Your task to perform on an android device: Open Yahoo.com Image 0: 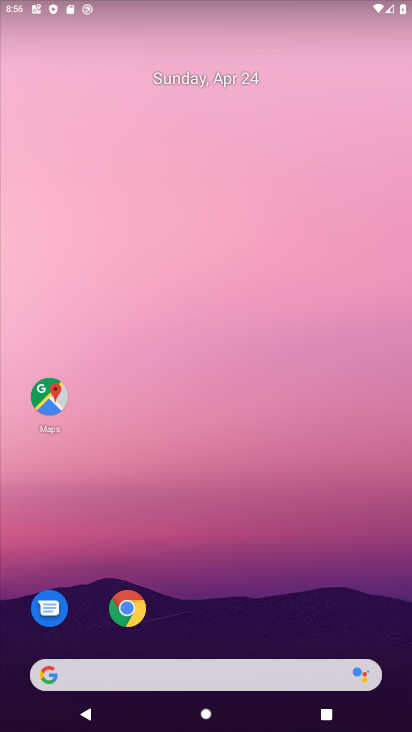
Step 0: drag from (279, 651) to (263, 208)
Your task to perform on an android device: Open Yahoo.com Image 1: 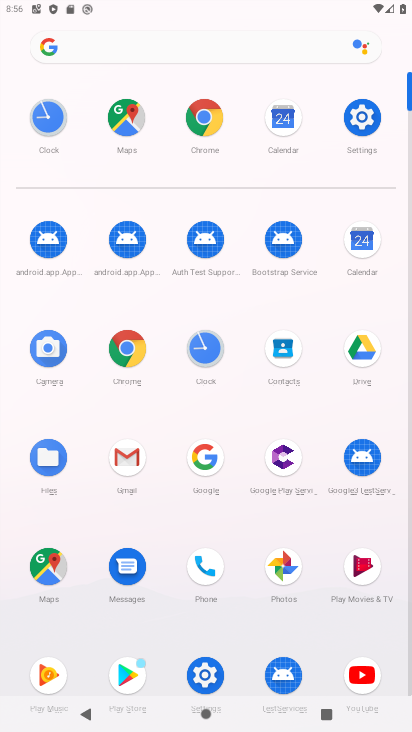
Step 1: click (209, 127)
Your task to perform on an android device: Open Yahoo.com Image 2: 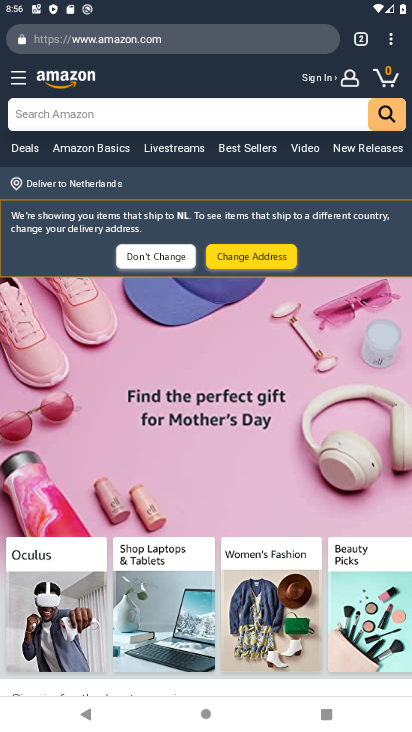
Step 2: click (181, 34)
Your task to perform on an android device: Open Yahoo.com Image 3: 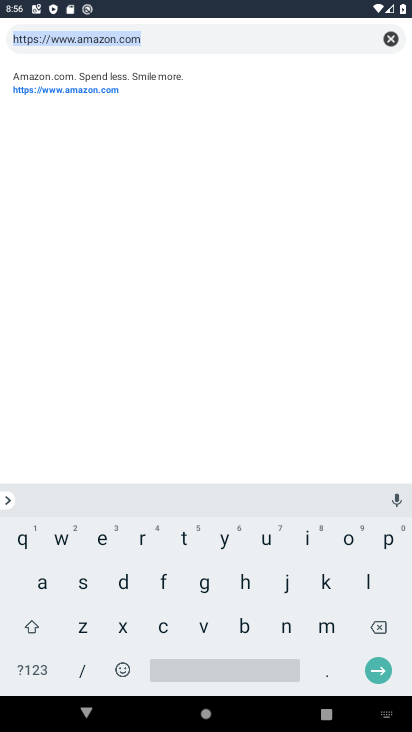
Step 3: click (396, 38)
Your task to perform on an android device: Open Yahoo.com Image 4: 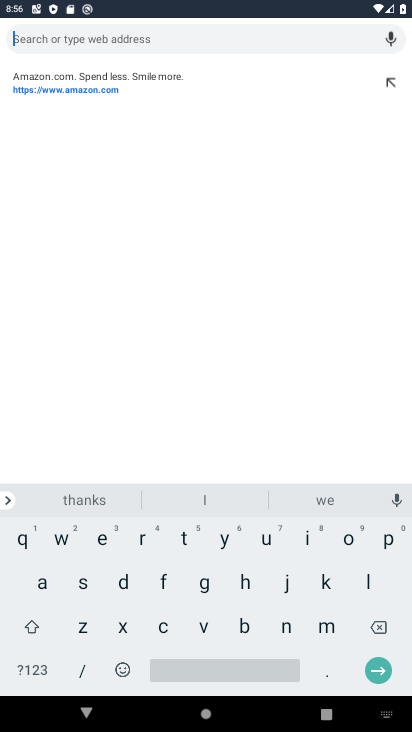
Step 4: click (219, 540)
Your task to perform on an android device: Open Yahoo.com Image 5: 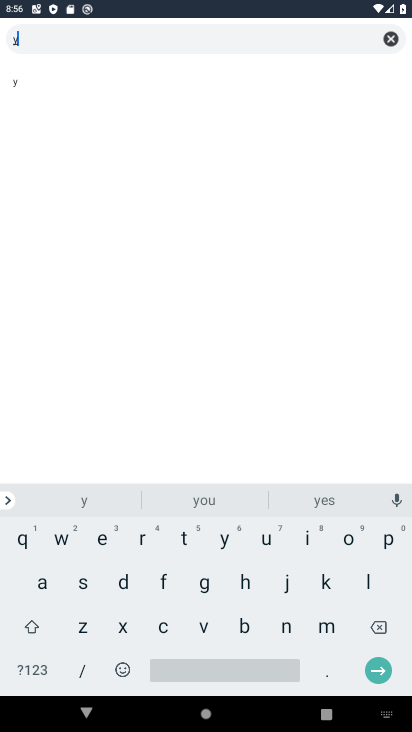
Step 5: click (38, 581)
Your task to perform on an android device: Open Yahoo.com Image 6: 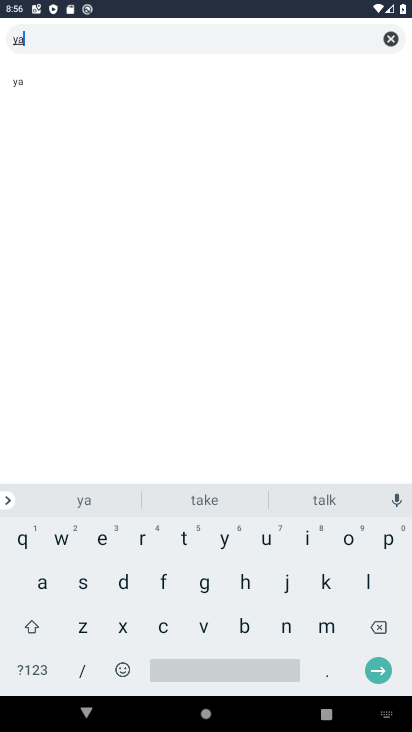
Step 6: click (242, 581)
Your task to perform on an android device: Open Yahoo.com Image 7: 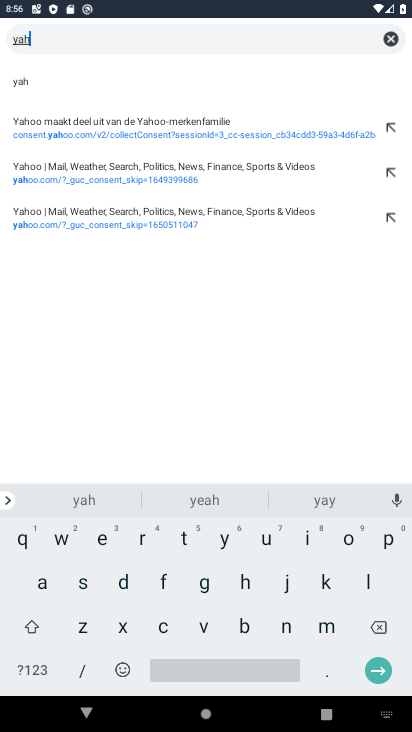
Step 7: click (347, 543)
Your task to perform on an android device: Open Yahoo.com Image 8: 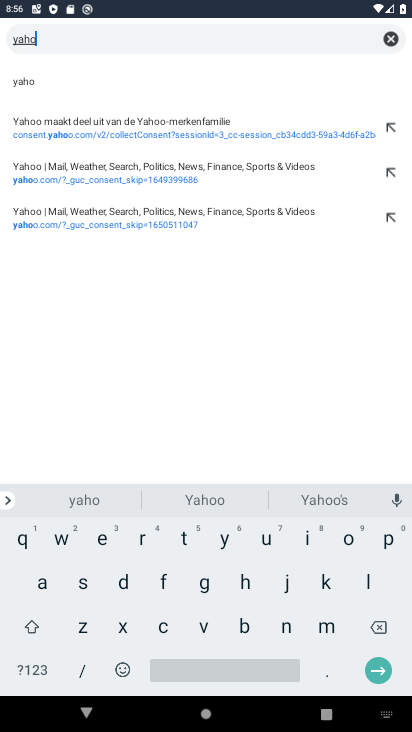
Step 8: click (347, 543)
Your task to perform on an android device: Open Yahoo.com Image 9: 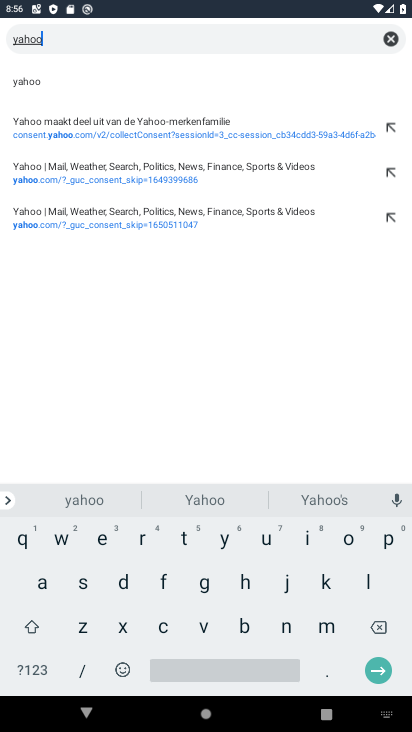
Step 9: click (384, 677)
Your task to perform on an android device: Open Yahoo.com Image 10: 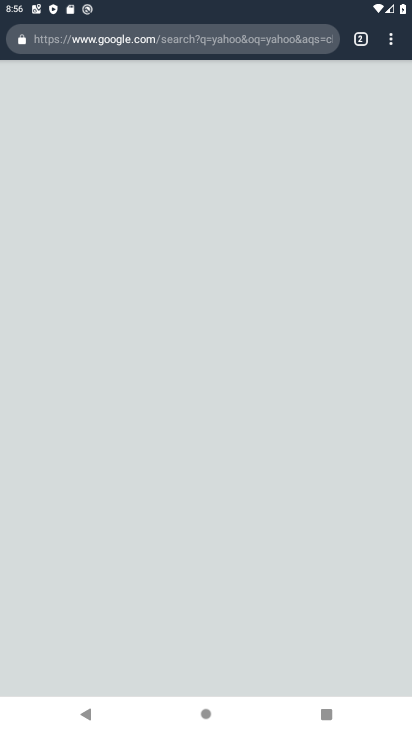
Step 10: task complete